Your task to perform on an android device: turn on notifications settings in the gmail app Image 0: 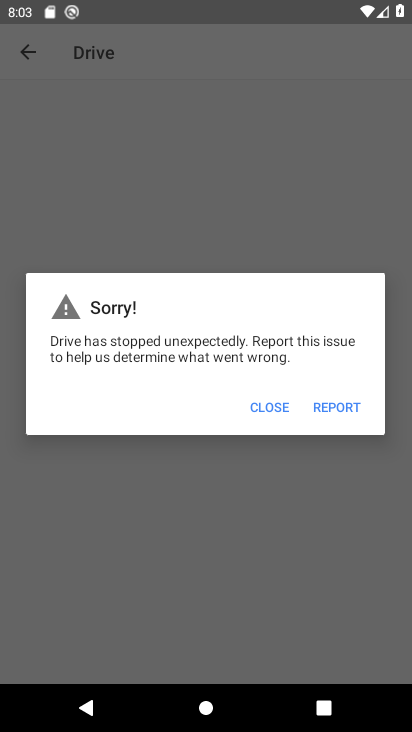
Step 0: press home button
Your task to perform on an android device: turn on notifications settings in the gmail app Image 1: 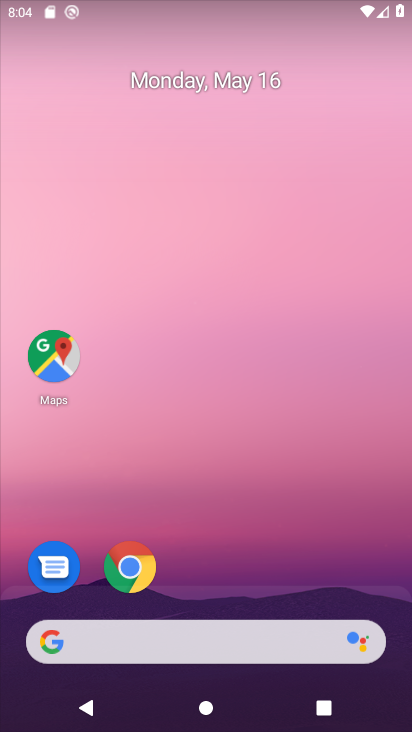
Step 1: drag from (219, 572) to (288, 21)
Your task to perform on an android device: turn on notifications settings in the gmail app Image 2: 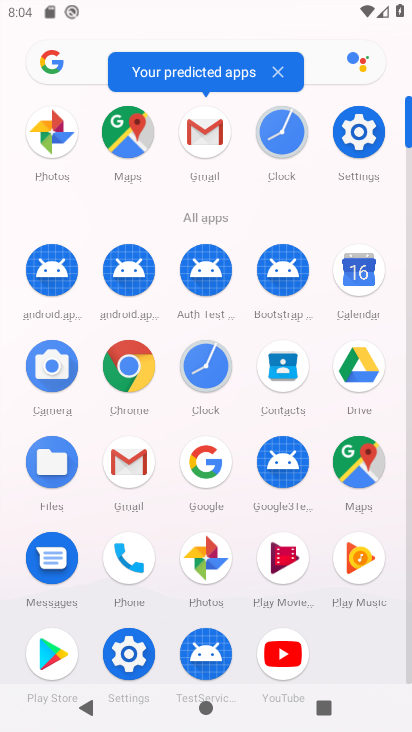
Step 2: click (131, 463)
Your task to perform on an android device: turn on notifications settings in the gmail app Image 3: 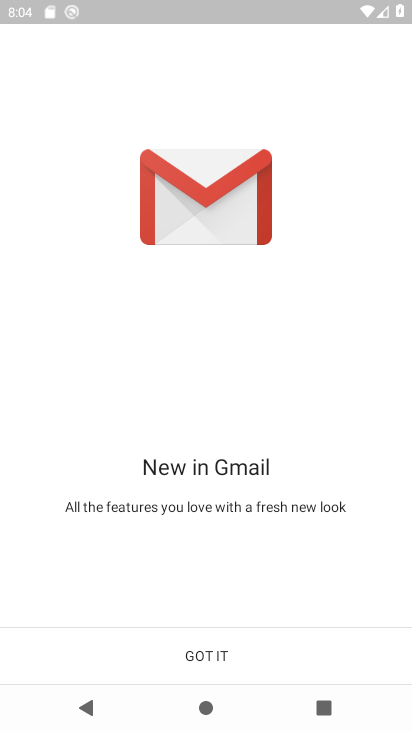
Step 3: click (223, 627)
Your task to perform on an android device: turn on notifications settings in the gmail app Image 4: 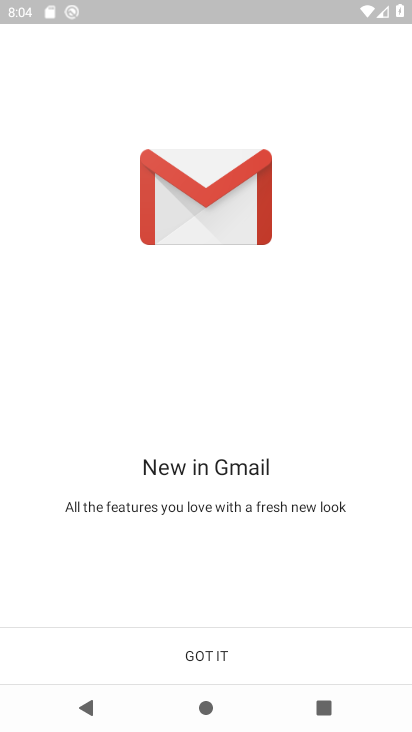
Step 4: click (191, 651)
Your task to perform on an android device: turn on notifications settings in the gmail app Image 5: 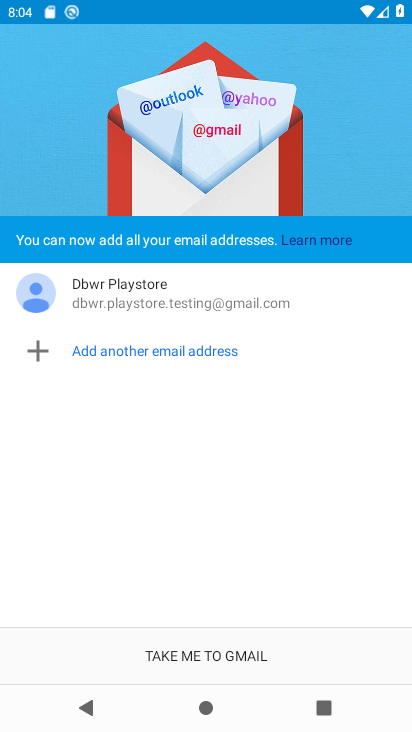
Step 5: click (266, 652)
Your task to perform on an android device: turn on notifications settings in the gmail app Image 6: 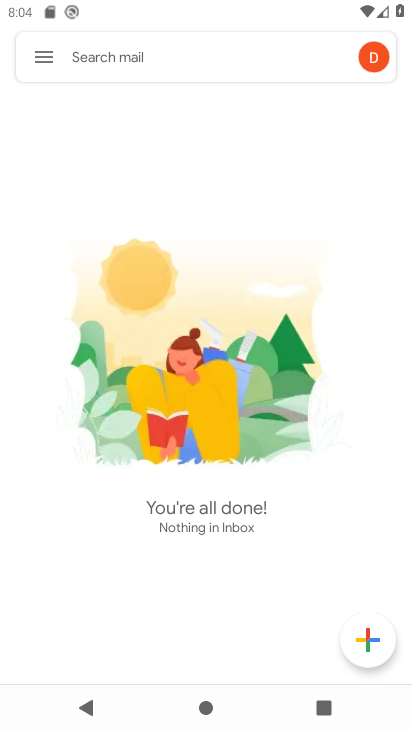
Step 6: click (46, 51)
Your task to perform on an android device: turn on notifications settings in the gmail app Image 7: 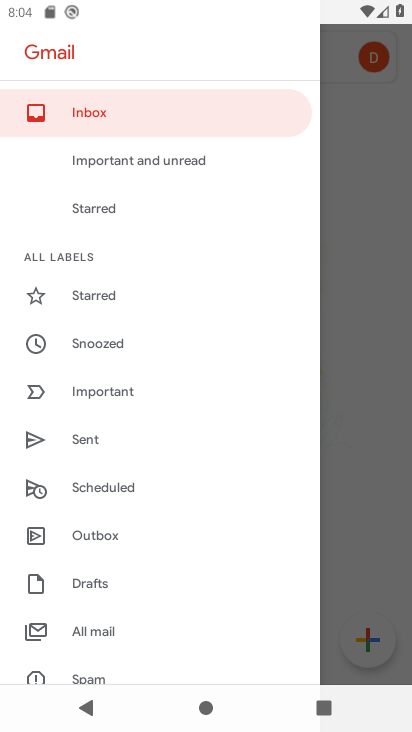
Step 7: drag from (152, 611) to (276, 245)
Your task to perform on an android device: turn on notifications settings in the gmail app Image 8: 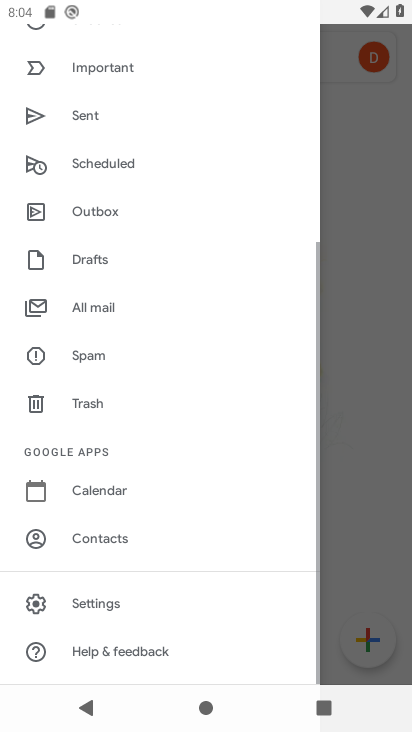
Step 8: click (99, 602)
Your task to perform on an android device: turn on notifications settings in the gmail app Image 9: 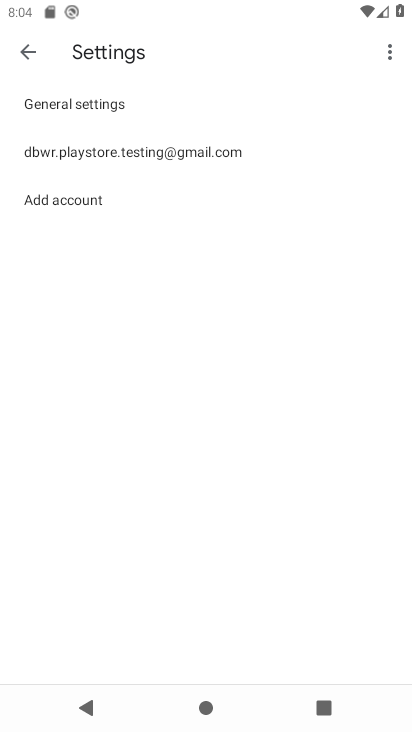
Step 9: click (198, 152)
Your task to perform on an android device: turn on notifications settings in the gmail app Image 10: 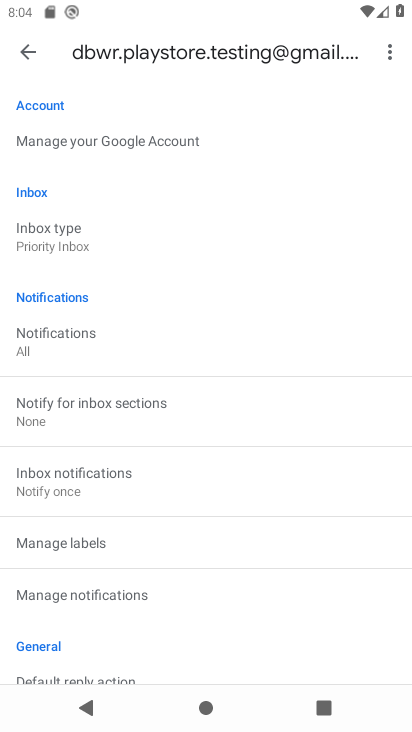
Step 10: click (148, 588)
Your task to perform on an android device: turn on notifications settings in the gmail app Image 11: 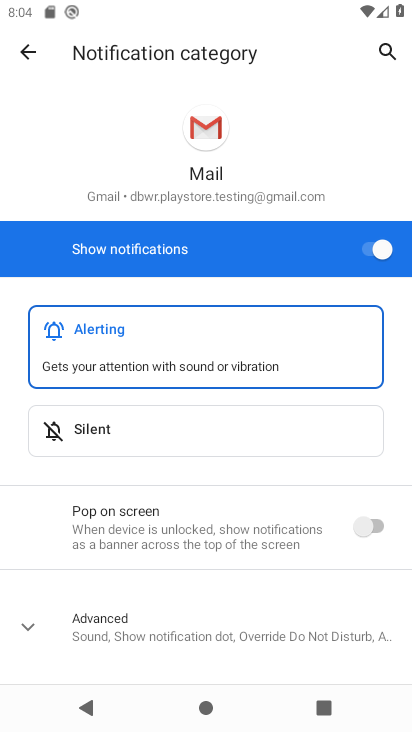
Step 11: task complete